Your task to perform on an android device: find snoozed emails in the gmail app Image 0: 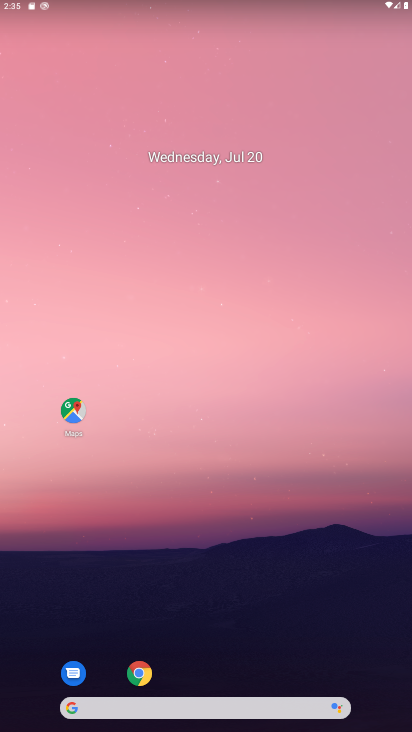
Step 0: drag from (227, 638) to (280, 228)
Your task to perform on an android device: find snoozed emails in the gmail app Image 1: 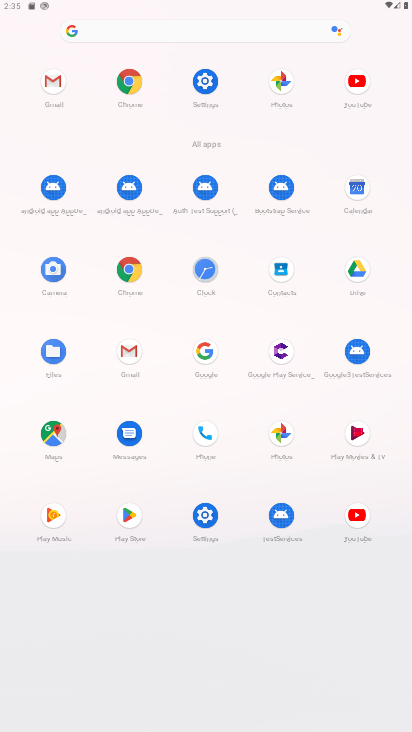
Step 1: click (133, 361)
Your task to perform on an android device: find snoozed emails in the gmail app Image 2: 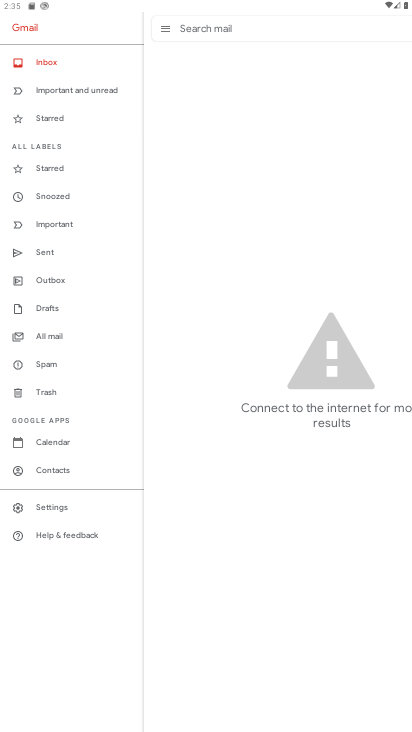
Step 2: click (68, 196)
Your task to perform on an android device: find snoozed emails in the gmail app Image 3: 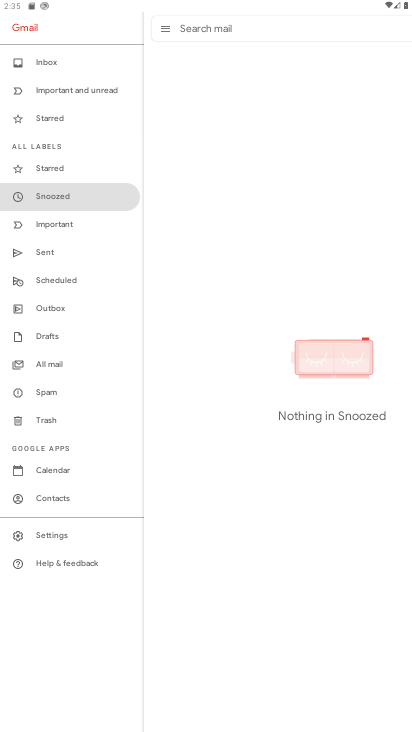
Step 3: task complete